Your task to perform on an android device: see sites visited before in the chrome app Image 0: 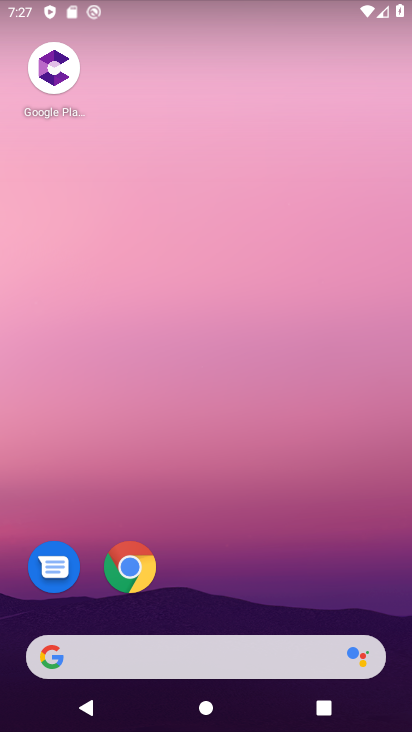
Step 0: click (134, 579)
Your task to perform on an android device: see sites visited before in the chrome app Image 1: 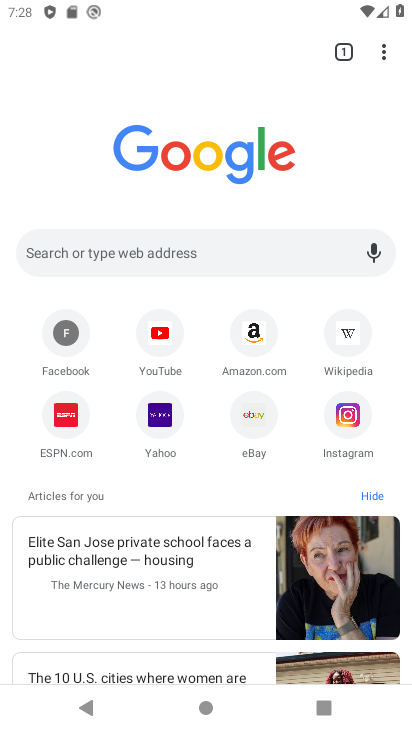
Step 1: click (391, 52)
Your task to perform on an android device: see sites visited before in the chrome app Image 2: 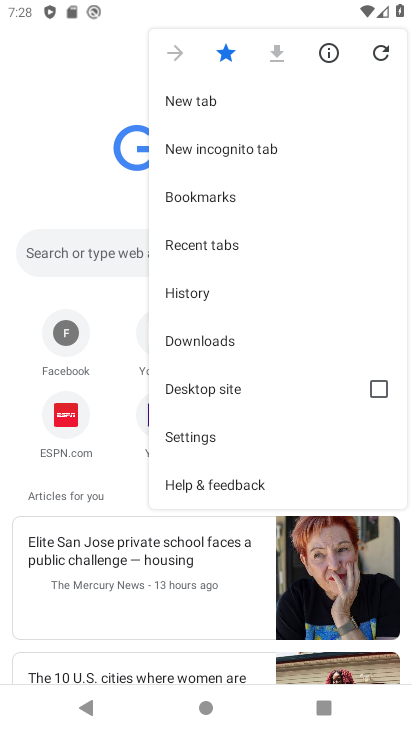
Step 2: click (245, 303)
Your task to perform on an android device: see sites visited before in the chrome app Image 3: 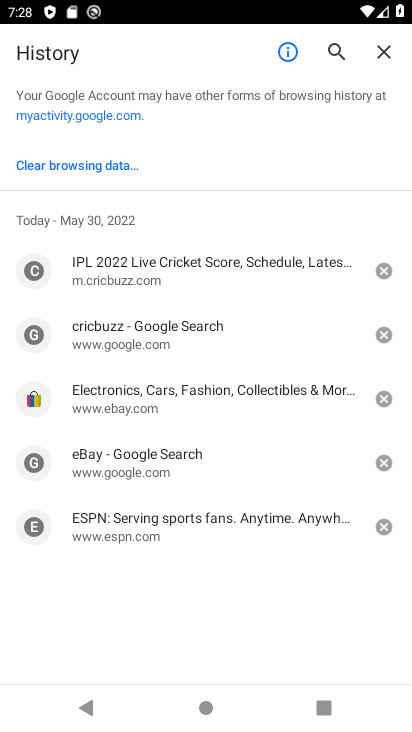
Step 3: task complete